Your task to perform on an android device: When is my next appointment? Image 0: 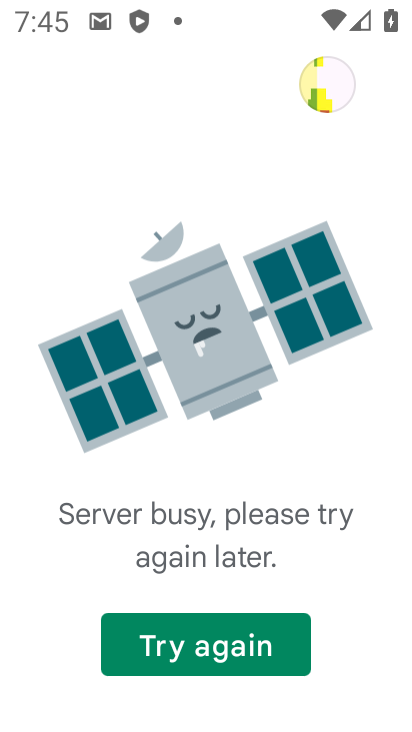
Step 0: press home button
Your task to perform on an android device: When is my next appointment? Image 1: 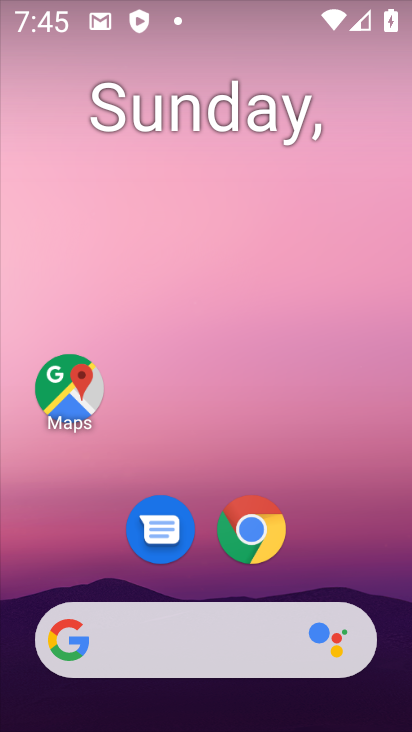
Step 1: drag from (213, 577) to (240, 5)
Your task to perform on an android device: When is my next appointment? Image 2: 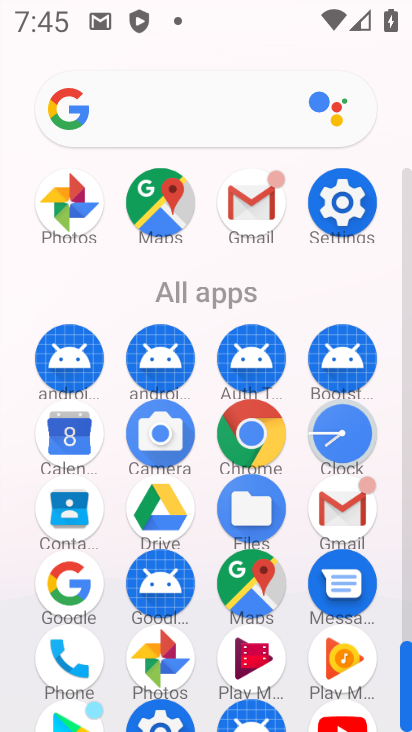
Step 2: click (78, 424)
Your task to perform on an android device: When is my next appointment? Image 3: 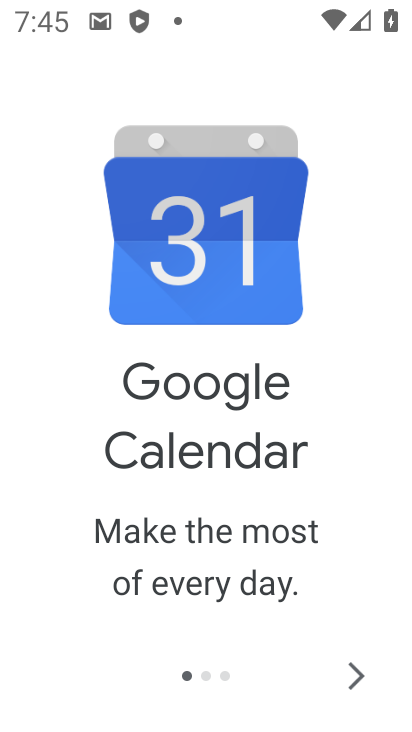
Step 3: click (366, 669)
Your task to perform on an android device: When is my next appointment? Image 4: 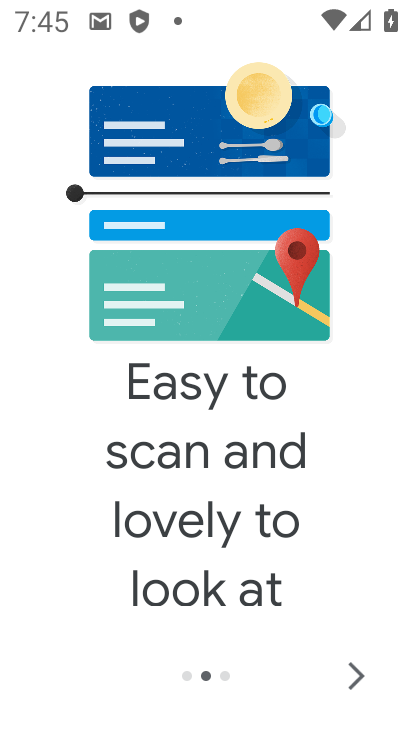
Step 4: click (360, 673)
Your task to perform on an android device: When is my next appointment? Image 5: 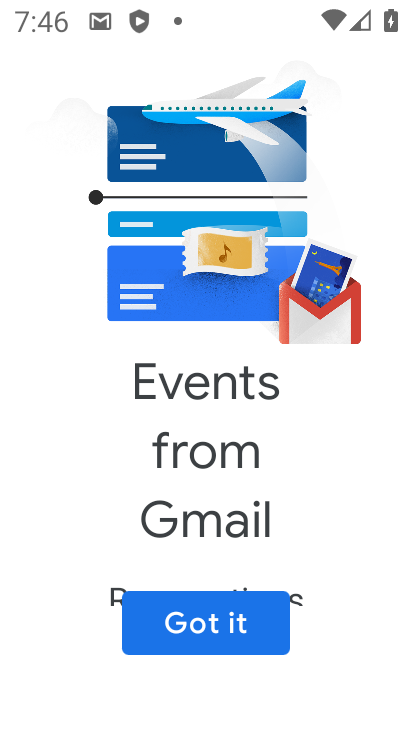
Step 5: click (266, 640)
Your task to perform on an android device: When is my next appointment? Image 6: 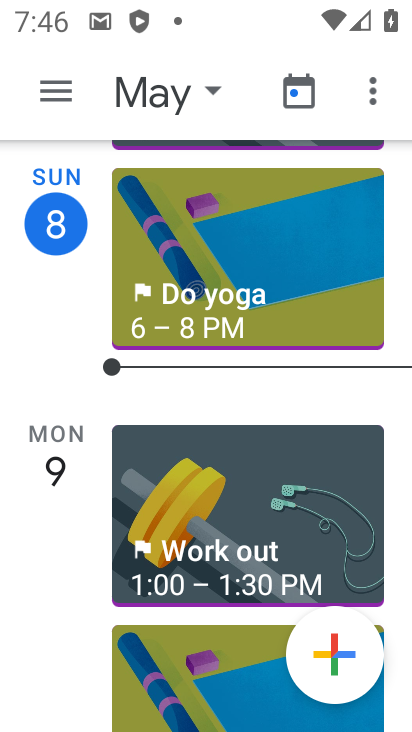
Step 6: click (60, 116)
Your task to perform on an android device: When is my next appointment? Image 7: 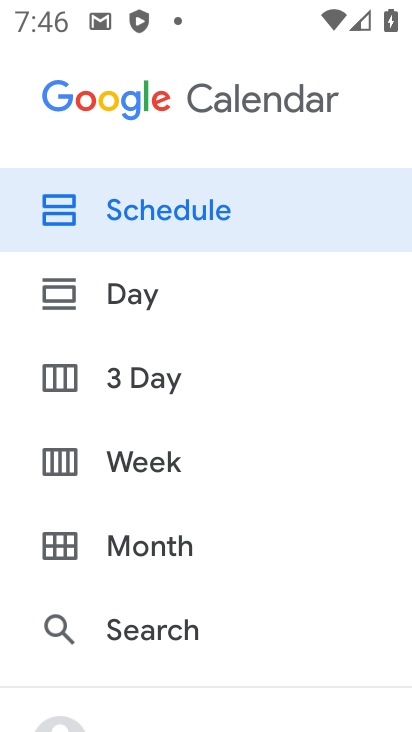
Step 7: click (149, 225)
Your task to perform on an android device: When is my next appointment? Image 8: 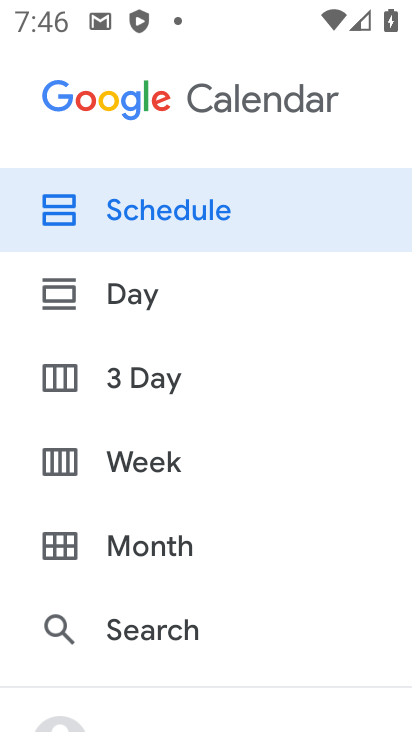
Step 8: click (181, 222)
Your task to perform on an android device: When is my next appointment? Image 9: 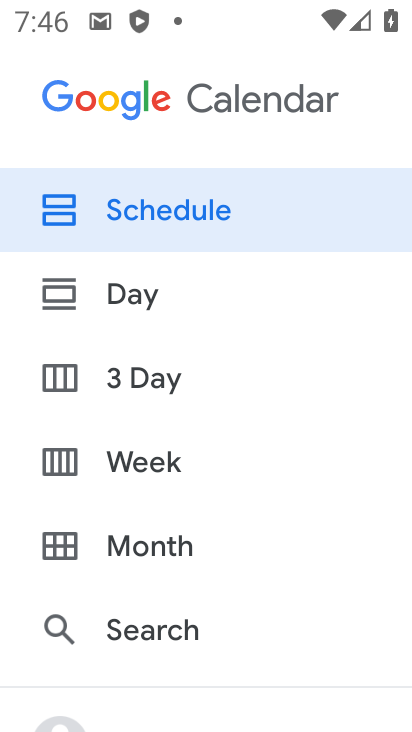
Step 9: click (254, 227)
Your task to perform on an android device: When is my next appointment? Image 10: 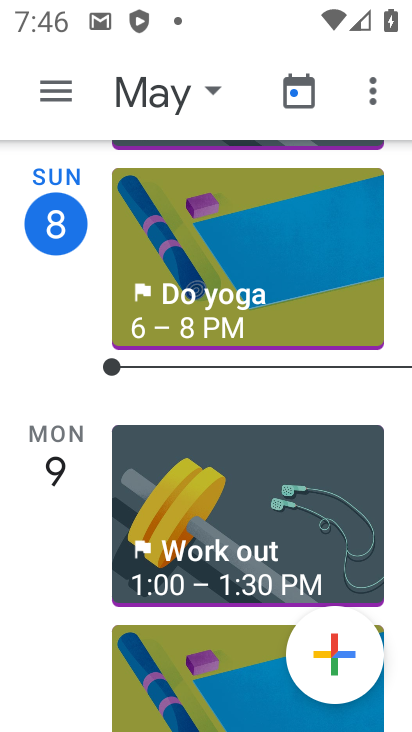
Step 10: drag from (180, 406) to (198, 171)
Your task to perform on an android device: When is my next appointment? Image 11: 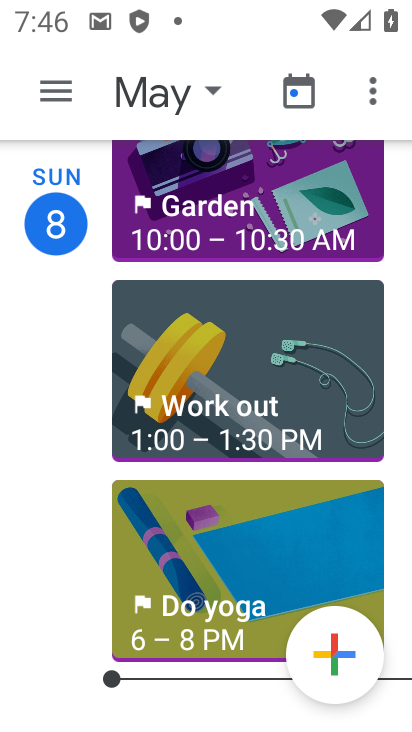
Step 11: drag from (192, 517) to (251, 207)
Your task to perform on an android device: When is my next appointment? Image 12: 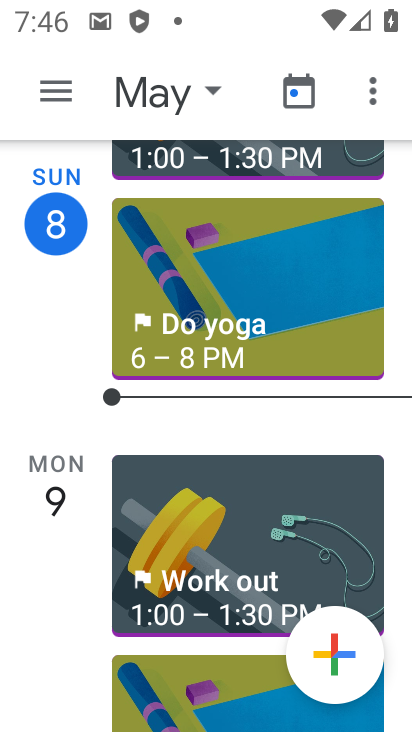
Step 12: drag from (246, 510) to (264, 239)
Your task to perform on an android device: When is my next appointment? Image 13: 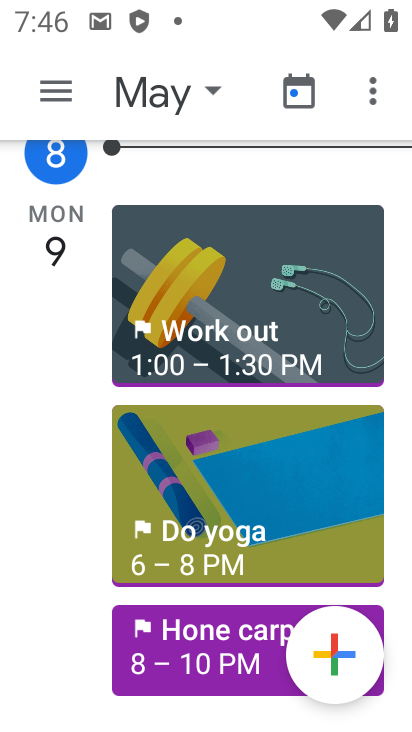
Step 13: drag from (254, 527) to (295, 267)
Your task to perform on an android device: When is my next appointment? Image 14: 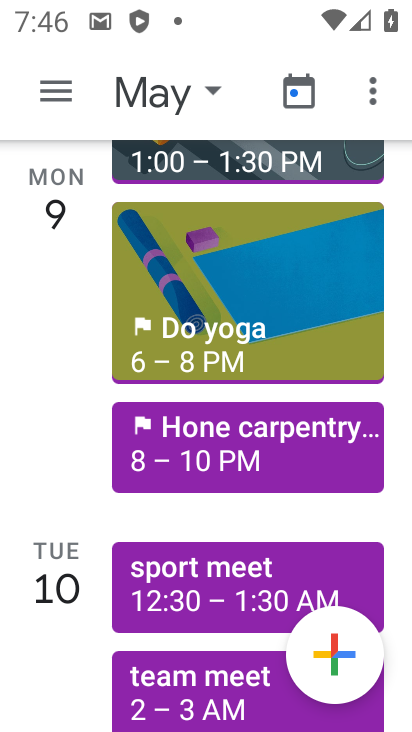
Step 14: drag from (231, 540) to (268, 252)
Your task to perform on an android device: When is my next appointment? Image 15: 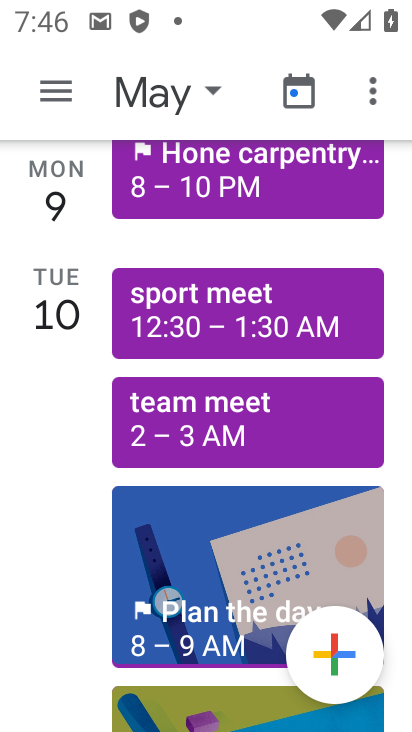
Step 15: drag from (251, 492) to (274, 362)
Your task to perform on an android device: When is my next appointment? Image 16: 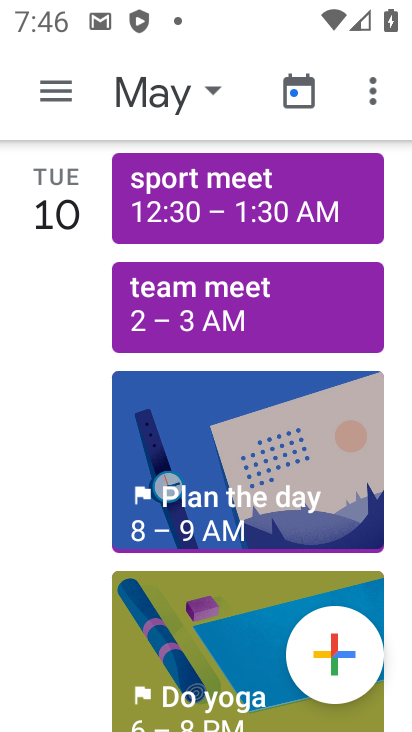
Step 16: click (241, 486)
Your task to perform on an android device: When is my next appointment? Image 17: 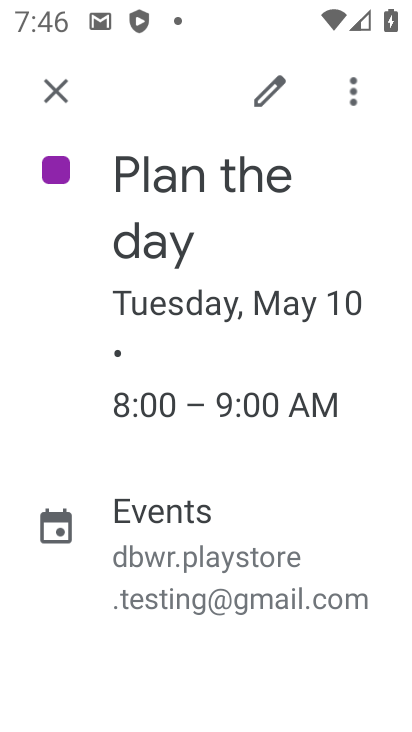
Step 17: task complete